Your task to perform on an android device: Go to Wikipedia Image 0: 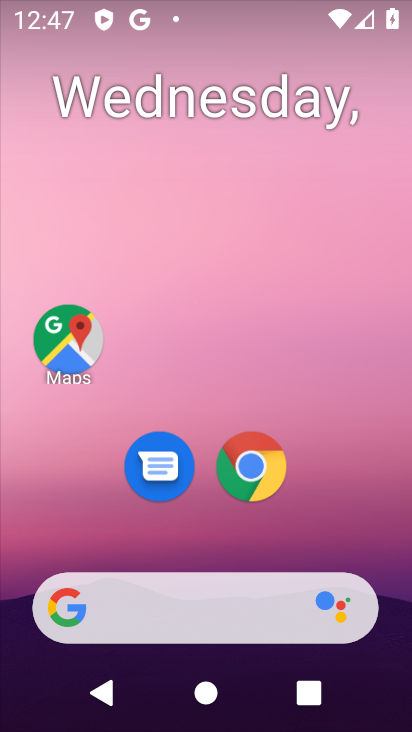
Step 0: click (229, 488)
Your task to perform on an android device: Go to Wikipedia Image 1: 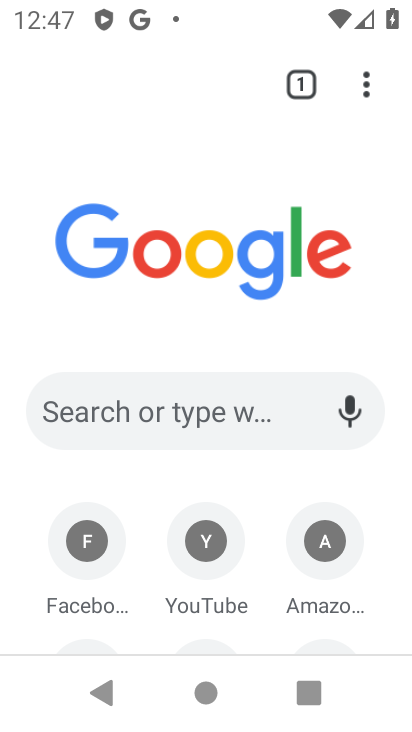
Step 1: drag from (299, 635) to (333, 70)
Your task to perform on an android device: Go to Wikipedia Image 2: 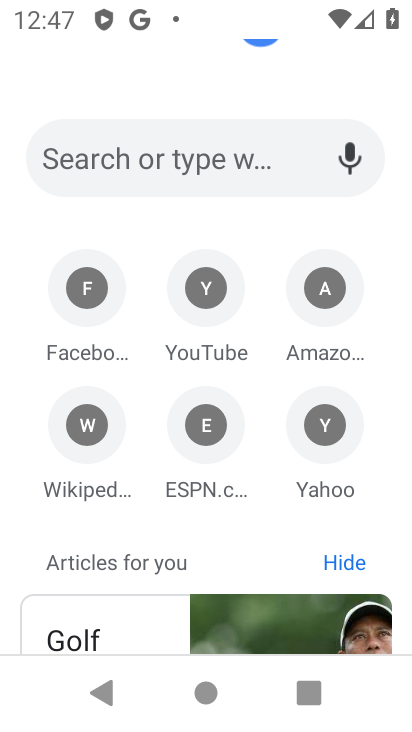
Step 2: click (93, 433)
Your task to perform on an android device: Go to Wikipedia Image 3: 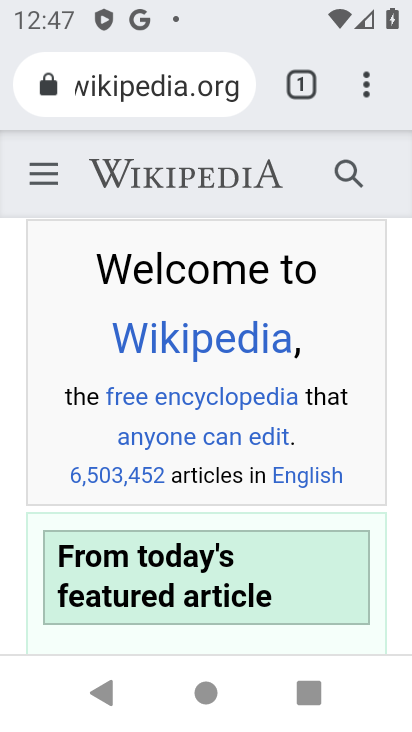
Step 3: task complete